Your task to perform on an android device: Go to accessibility settings Image 0: 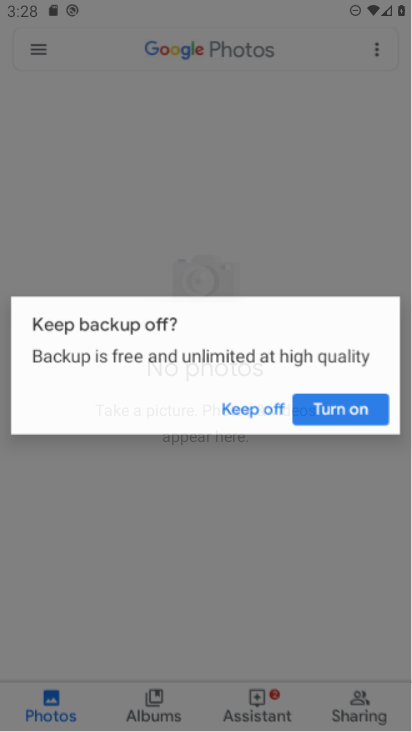
Step 0: press back button
Your task to perform on an android device: Go to accessibility settings Image 1: 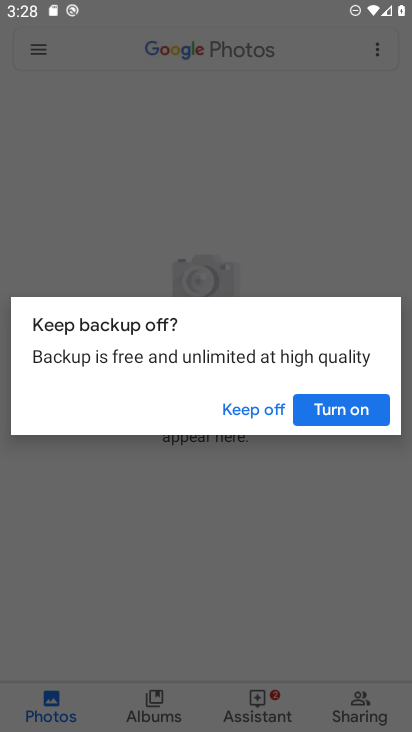
Step 1: press home button
Your task to perform on an android device: Go to accessibility settings Image 2: 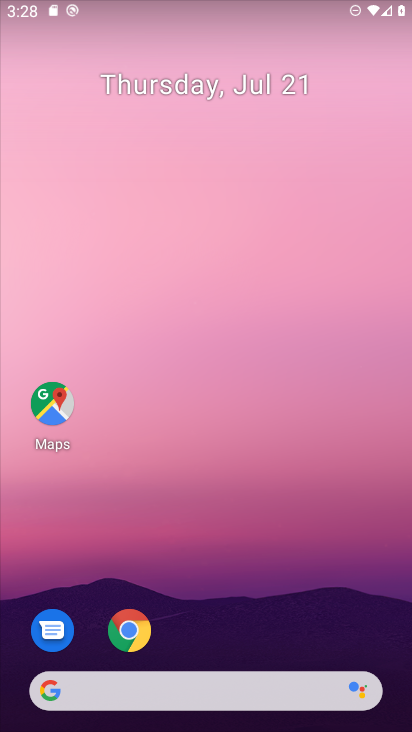
Step 2: drag from (224, 621) to (315, 15)
Your task to perform on an android device: Go to accessibility settings Image 3: 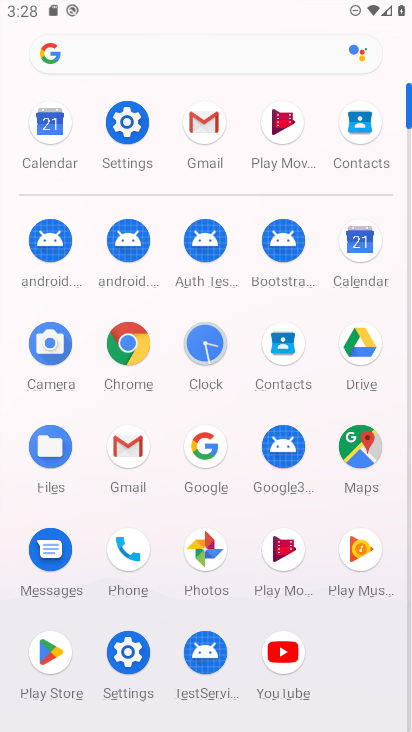
Step 3: click (116, 123)
Your task to perform on an android device: Go to accessibility settings Image 4: 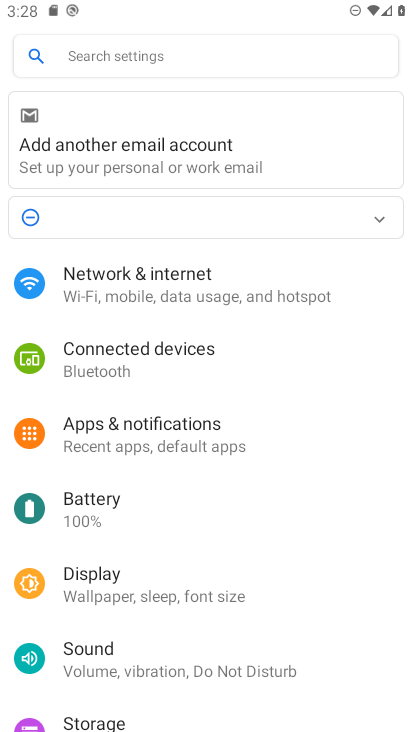
Step 4: drag from (192, 665) to (335, 92)
Your task to perform on an android device: Go to accessibility settings Image 5: 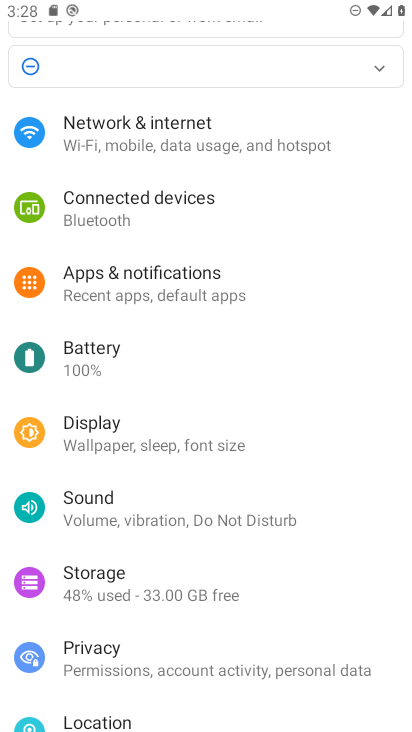
Step 5: drag from (191, 650) to (337, 45)
Your task to perform on an android device: Go to accessibility settings Image 6: 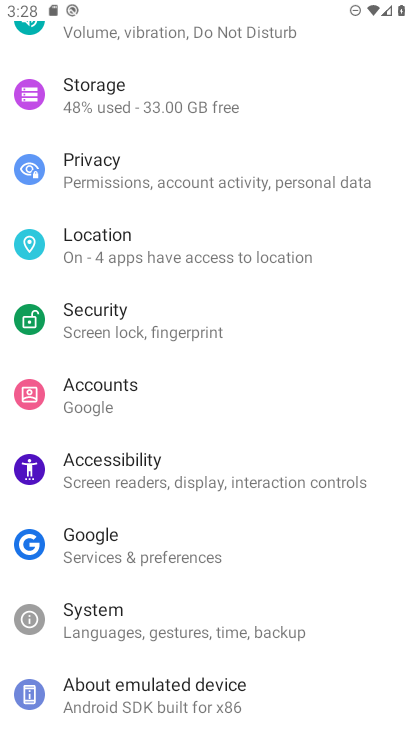
Step 6: click (175, 474)
Your task to perform on an android device: Go to accessibility settings Image 7: 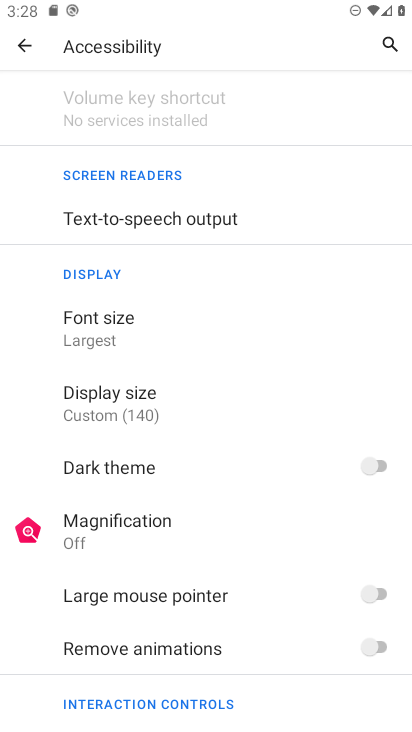
Step 7: task complete